Your task to perform on an android device: stop showing notifications on the lock screen Image 0: 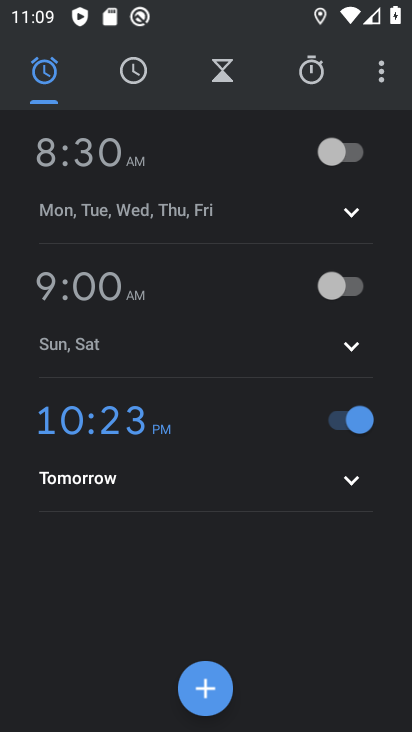
Step 0: press home button
Your task to perform on an android device: stop showing notifications on the lock screen Image 1: 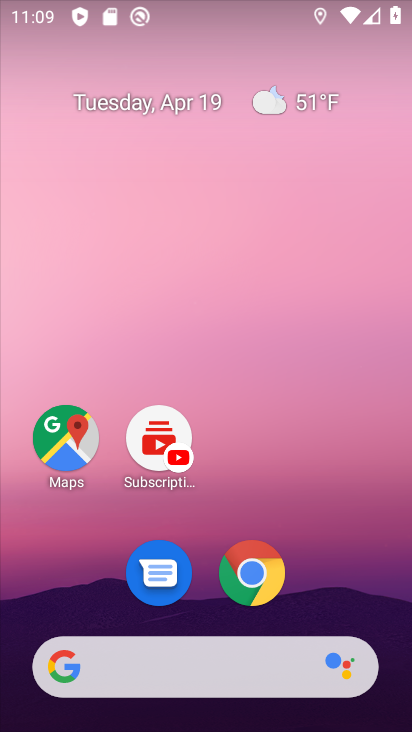
Step 1: drag from (323, 489) to (301, 47)
Your task to perform on an android device: stop showing notifications on the lock screen Image 2: 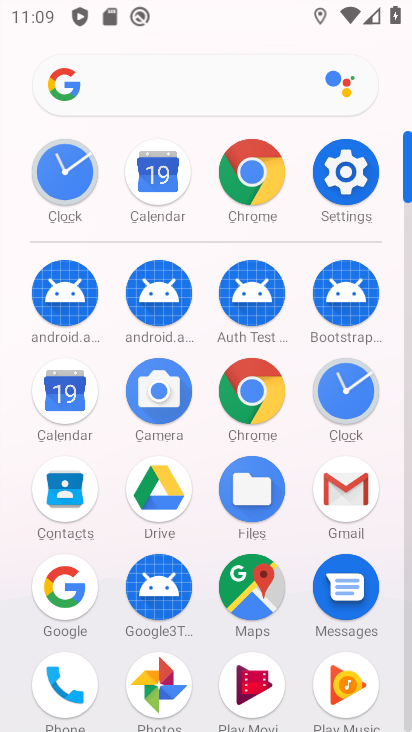
Step 2: click (352, 185)
Your task to perform on an android device: stop showing notifications on the lock screen Image 3: 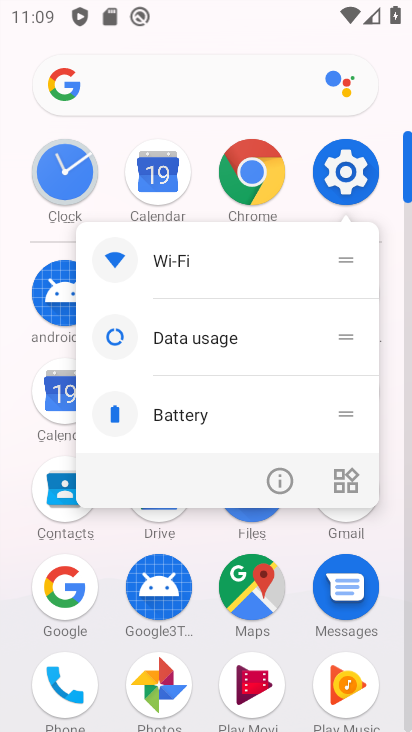
Step 3: click (352, 185)
Your task to perform on an android device: stop showing notifications on the lock screen Image 4: 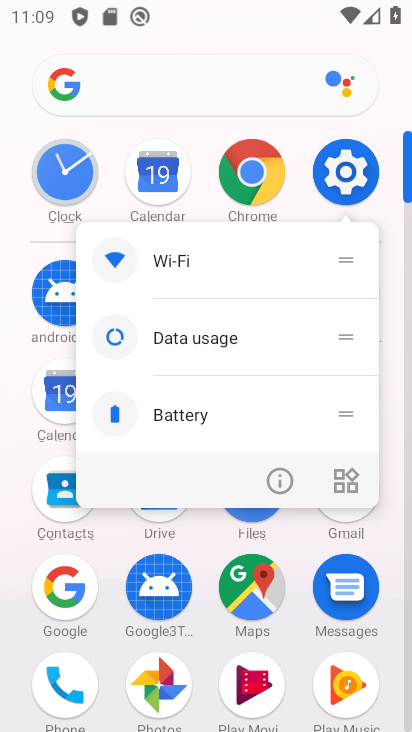
Step 4: click (353, 185)
Your task to perform on an android device: stop showing notifications on the lock screen Image 5: 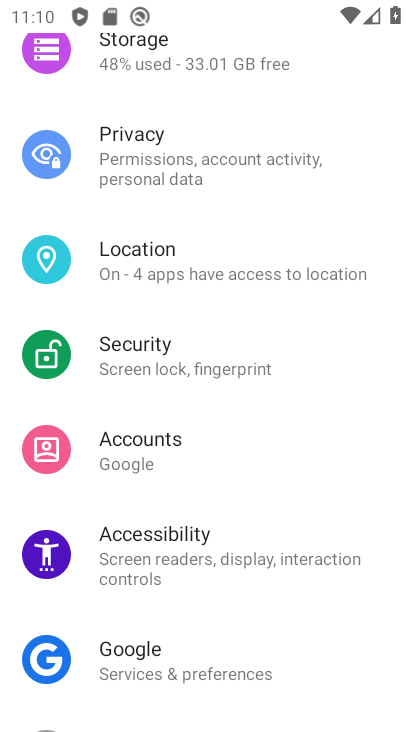
Step 5: drag from (229, 210) to (214, 552)
Your task to perform on an android device: stop showing notifications on the lock screen Image 6: 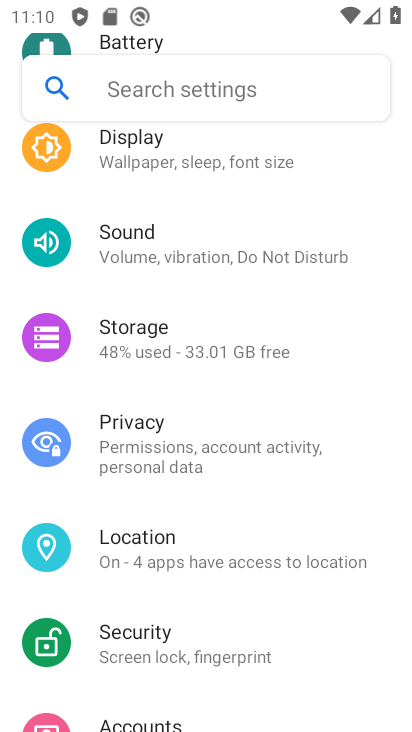
Step 6: drag from (181, 199) to (178, 598)
Your task to perform on an android device: stop showing notifications on the lock screen Image 7: 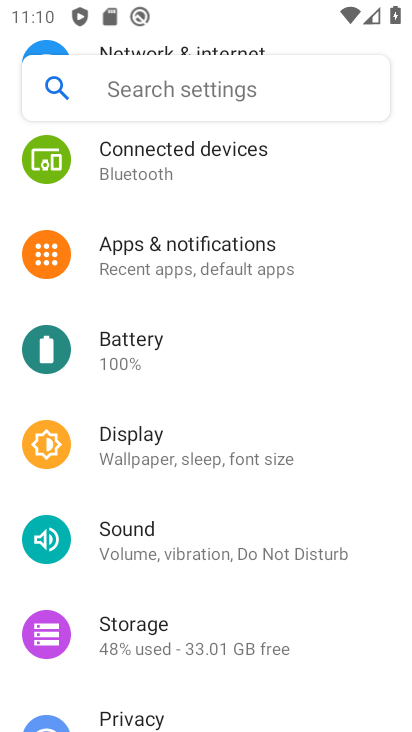
Step 7: click (196, 247)
Your task to perform on an android device: stop showing notifications on the lock screen Image 8: 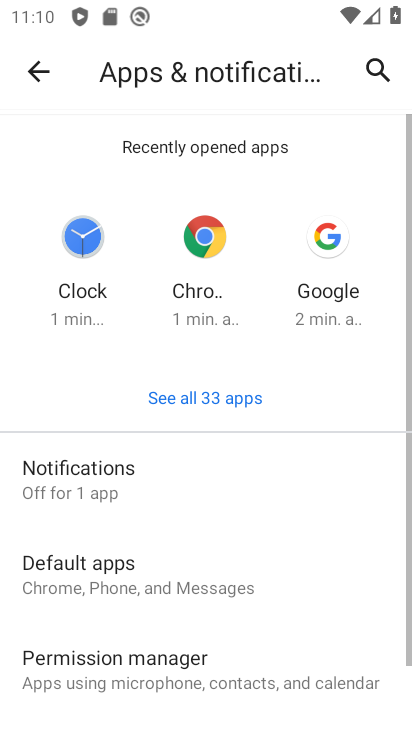
Step 8: drag from (138, 570) to (165, 156)
Your task to perform on an android device: stop showing notifications on the lock screen Image 9: 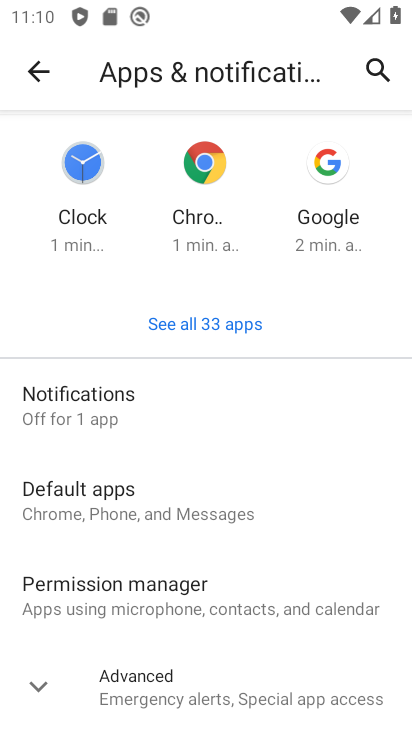
Step 9: click (102, 415)
Your task to perform on an android device: stop showing notifications on the lock screen Image 10: 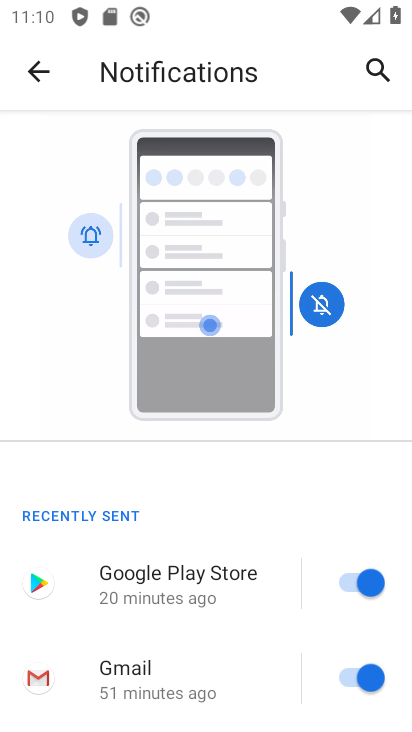
Step 10: drag from (150, 628) to (200, 196)
Your task to perform on an android device: stop showing notifications on the lock screen Image 11: 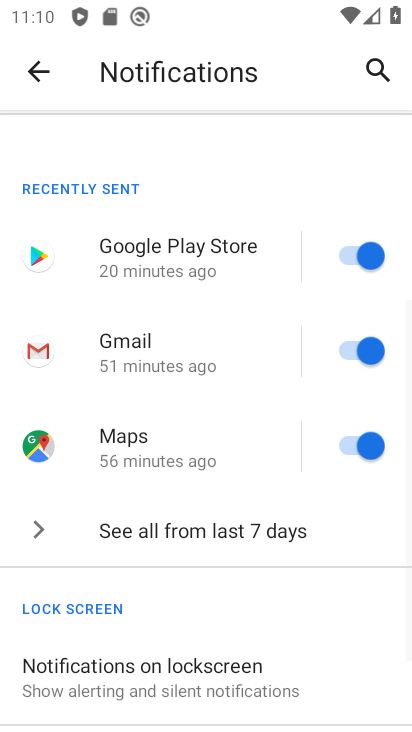
Step 11: drag from (212, 629) to (220, 368)
Your task to perform on an android device: stop showing notifications on the lock screen Image 12: 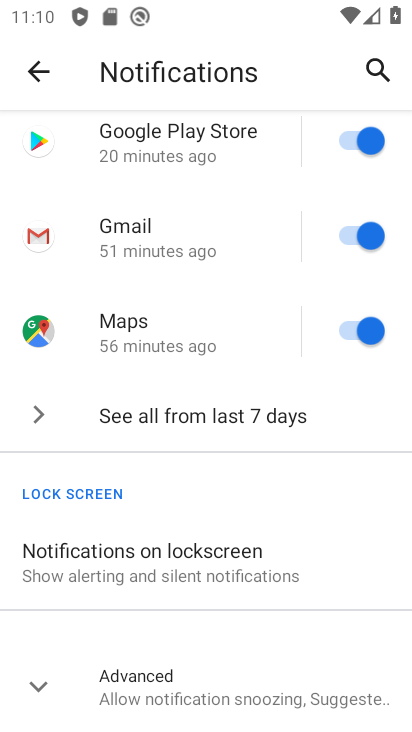
Step 12: click (125, 546)
Your task to perform on an android device: stop showing notifications on the lock screen Image 13: 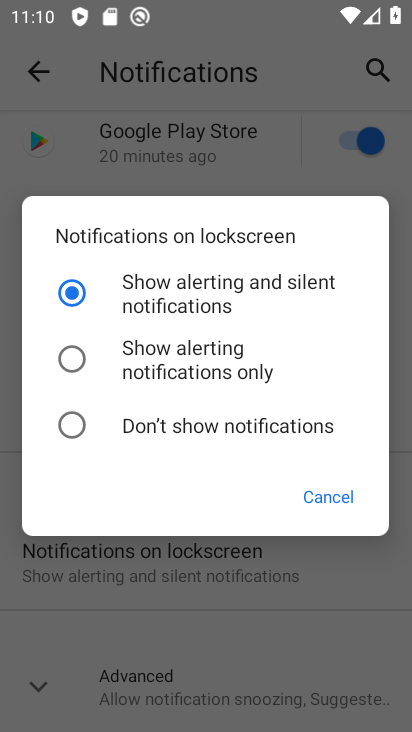
Step 13: click (58, 426)
Your task to perform on an android device: stop showing notifications on the lock screen Image 14: 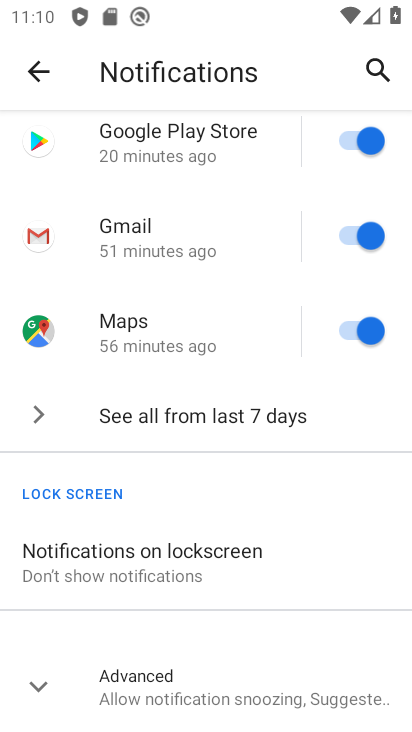
Step 14: task complete